Your task to perform on an android device: Open Chrome and go to the settings page Image 0: 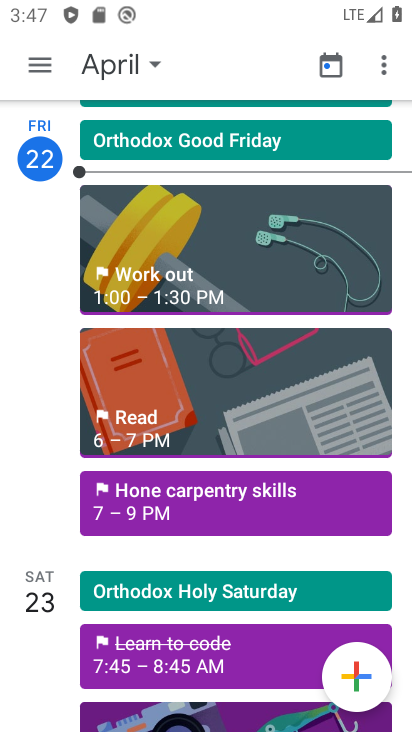
Step 0: press home button
Your task to perform on an android device: Open Chrome and go to the settings page Image 1: 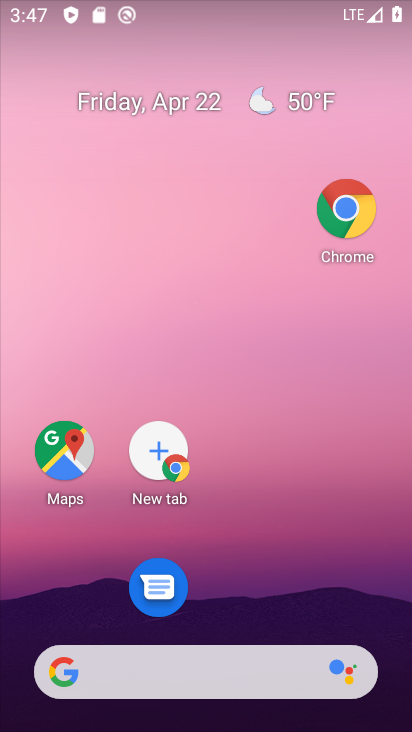
Step 1: click (351, 204)
Your task to perform on an android device: Open Chrome and go to the settings page Image 2: 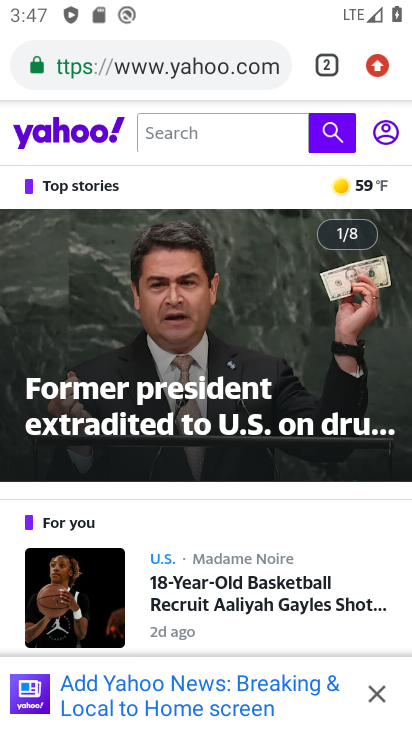
Step 2: click (382, 65)
Your task to perform on an android device: Open Chrome and go to the settings page Image 3: 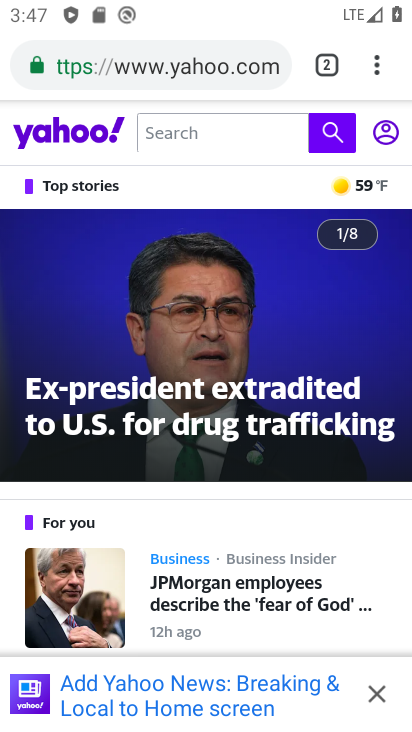
Step 3: click (378, 78)
Your task to perform on an android device: Open Chrome and go to the settings page Image 4: 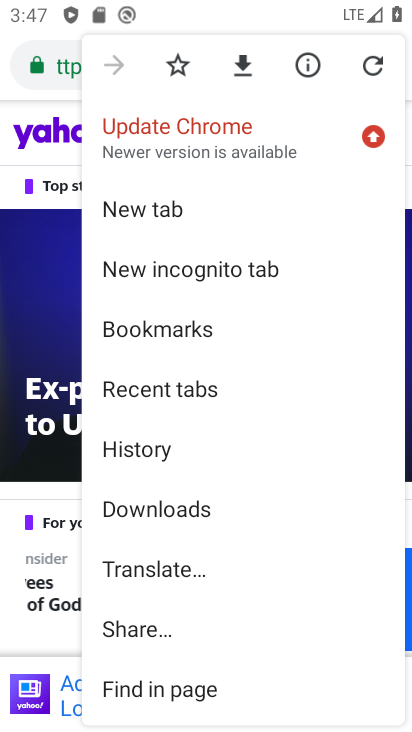
Step 4: drag from (190, 500) to (262, 273)
Your task to perform on an android device: Open Chrome and go to the settings page Image 5: 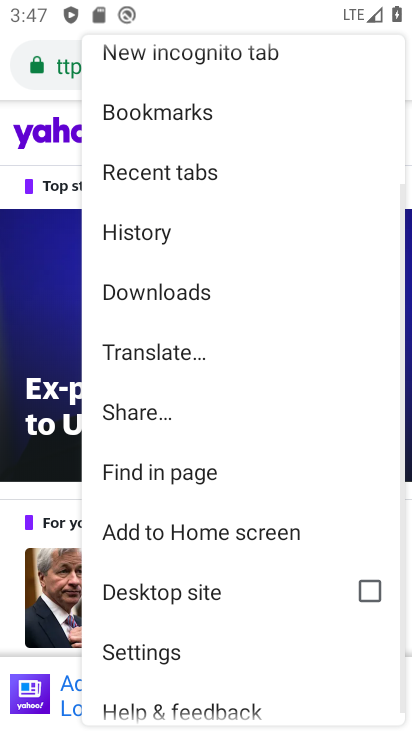
Step 5: click (144, 666)
Your task to perform on an android device: Open Chrome and go to the settings page Image 6: 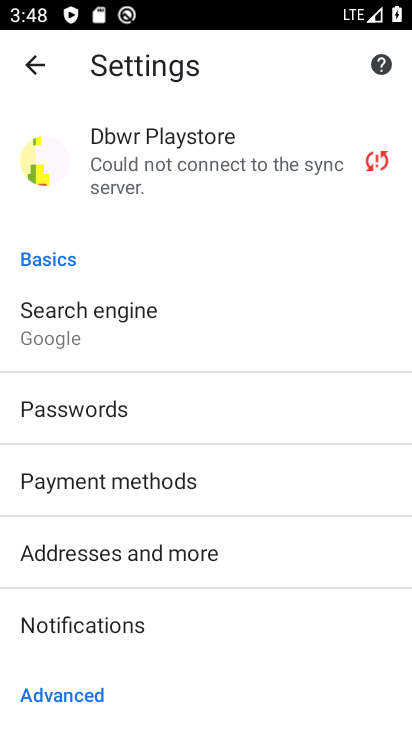
Step 6: task complete